Your task to perform on an android device: delete the emails in spam in the gmail app Image 0: 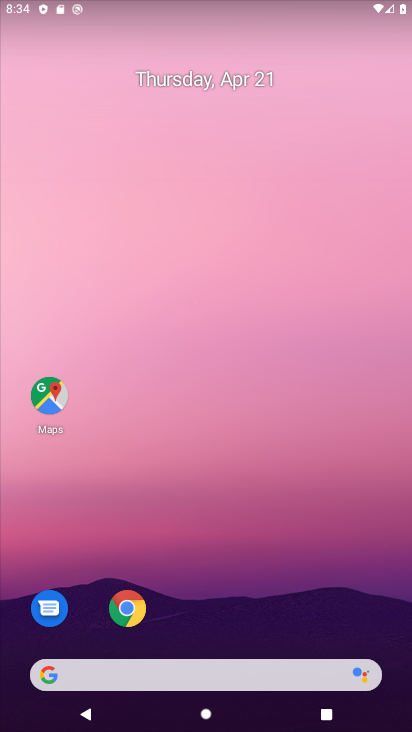
Step 0: drag from (282, 605) to (277, 88)
Your task to perform on an android device: delete the emails in spam in the gmail app Image 1: 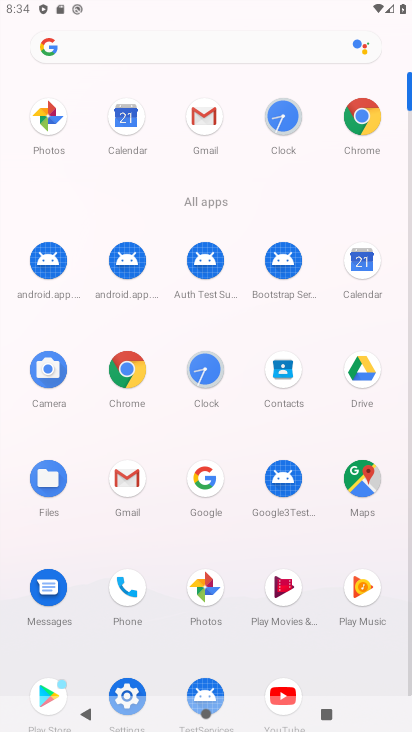
Step 1: click (133, 474)
Your task to perform on an android device: delete the emails in spam in the gmail app Image 2: 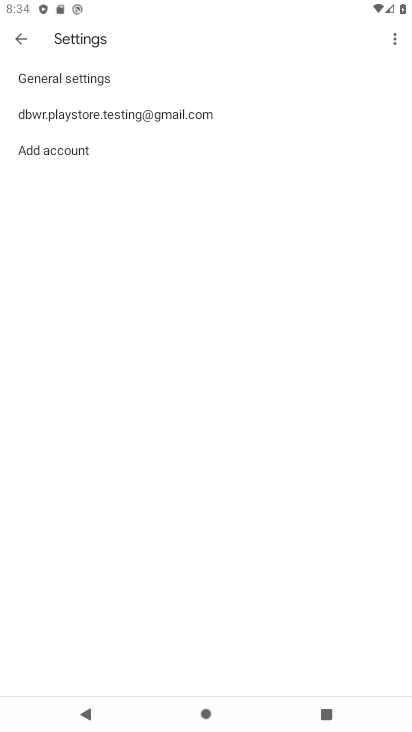
Step 2: click (214, 114)
Your task to perform on an android device: delete the emails in spam in the gmail app Image 3: 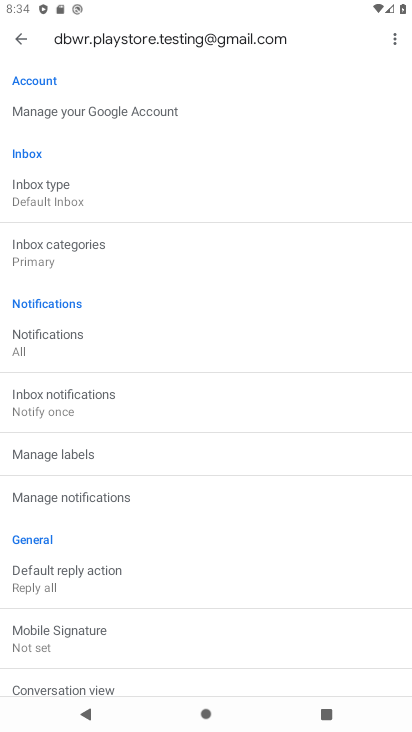
Step 3: press back button
Your task to perform on an android device: delete the emails in spam in the gmail app Image 4: 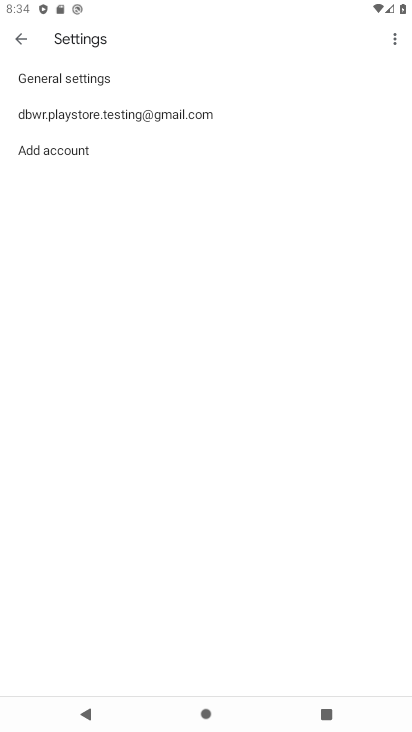
Step 4: press back button
Your task to perform on an android device: delete the emails in spam in the gmail app Image 5: 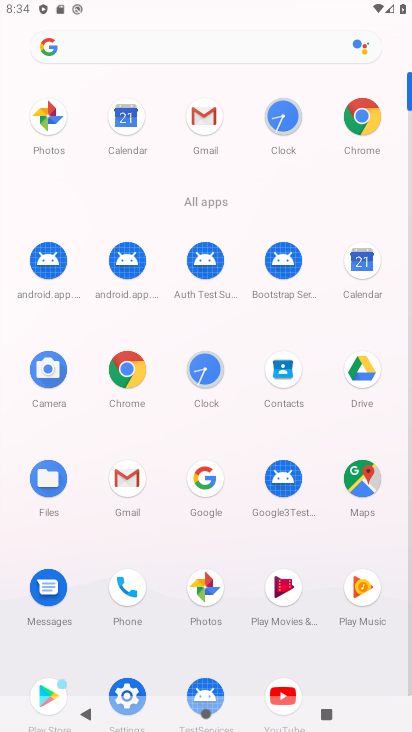
Step 5: click (211, 129)
Your task to perform on an android device: delete the emails in spam in the gmail app Image 6: 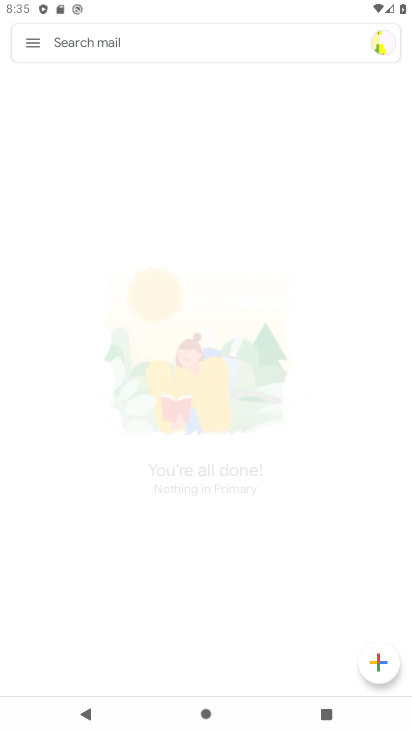
Step 6: click (26, 39)
Your task to perform on an android device: delete the emails in spam in the gmail app Image 7: 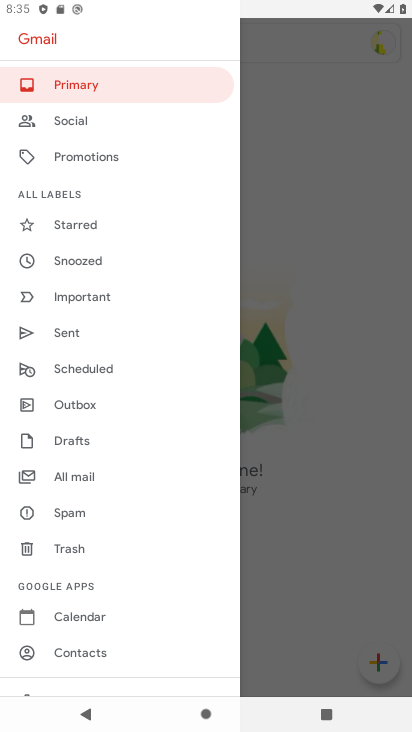
Step 7: click (157, 504)
Your task to perform on an android device: delete the emails in spam in the gmail app Image 8: 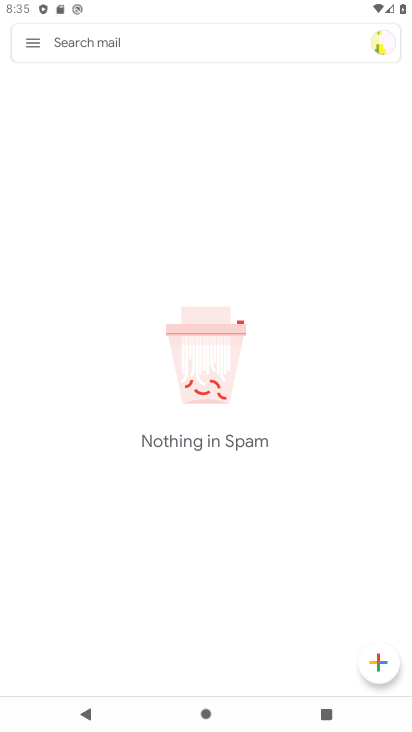
Step 8: click (34, 45)
Your task to perform on an android device: delete the emails in spam in the gmail app Image 9: 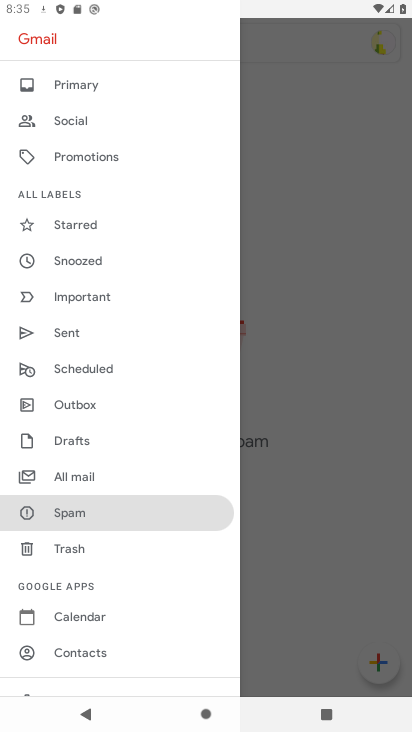
Step 9: click (120, 501)
Your task to perform on an android device: delete the emails in spam in the gmail app Image 10: 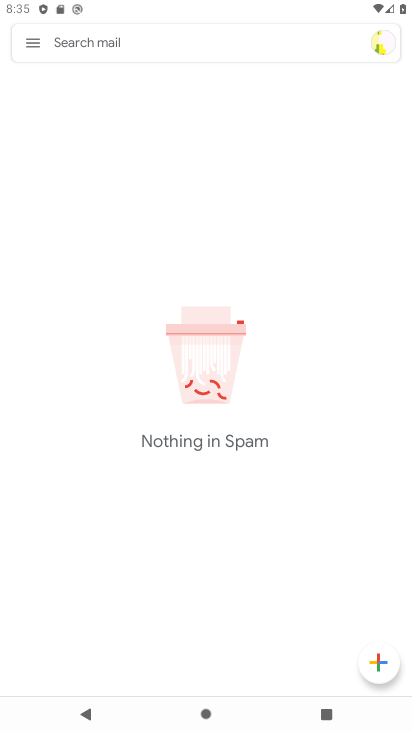
Step 10: task complete